Your task to perform on an android device: Search for "logitech g pro" on bestbuy, select the first entry, and add it to the cart. Image 0: 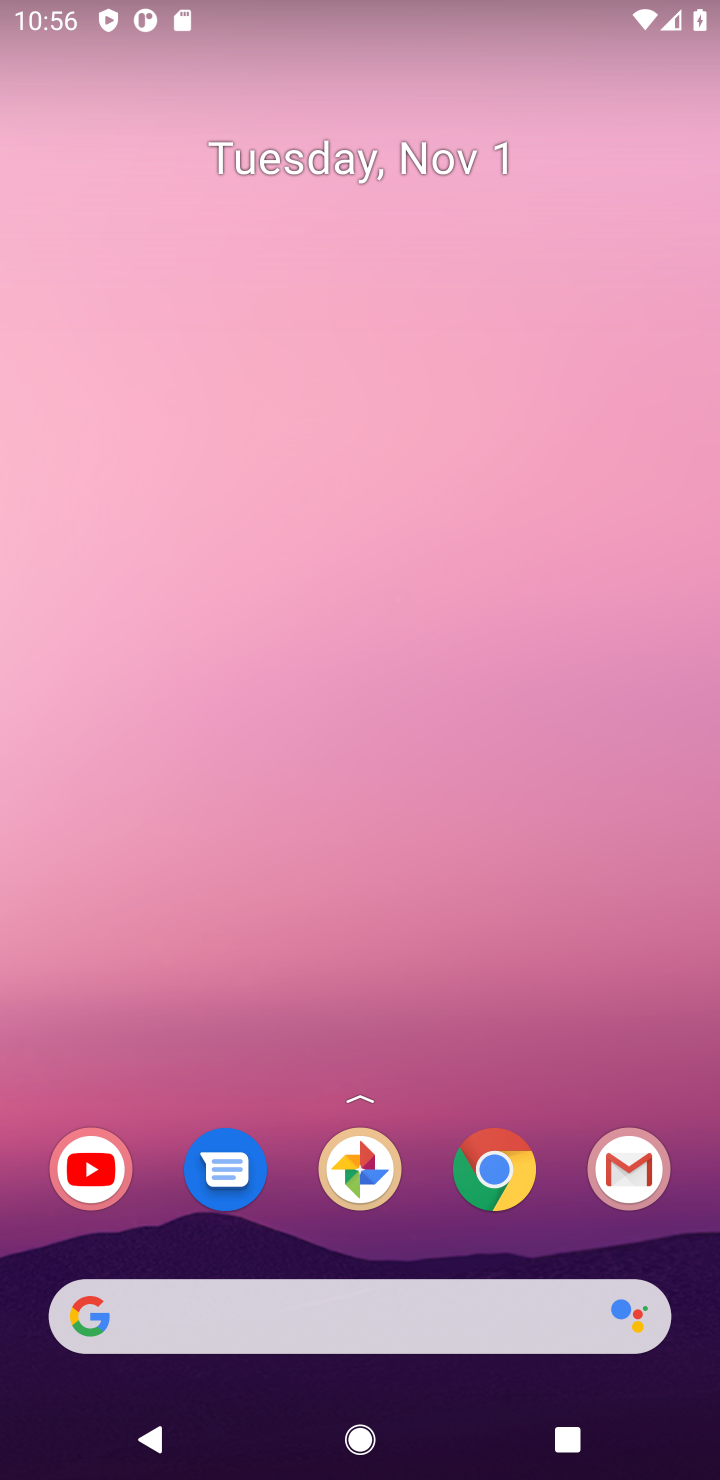
Step 0: click (497, 1176)
Your task to perform on an android device: Search for "logitech g pro" on bestbuy, select the first entry, and add it to the cart. Image 1: 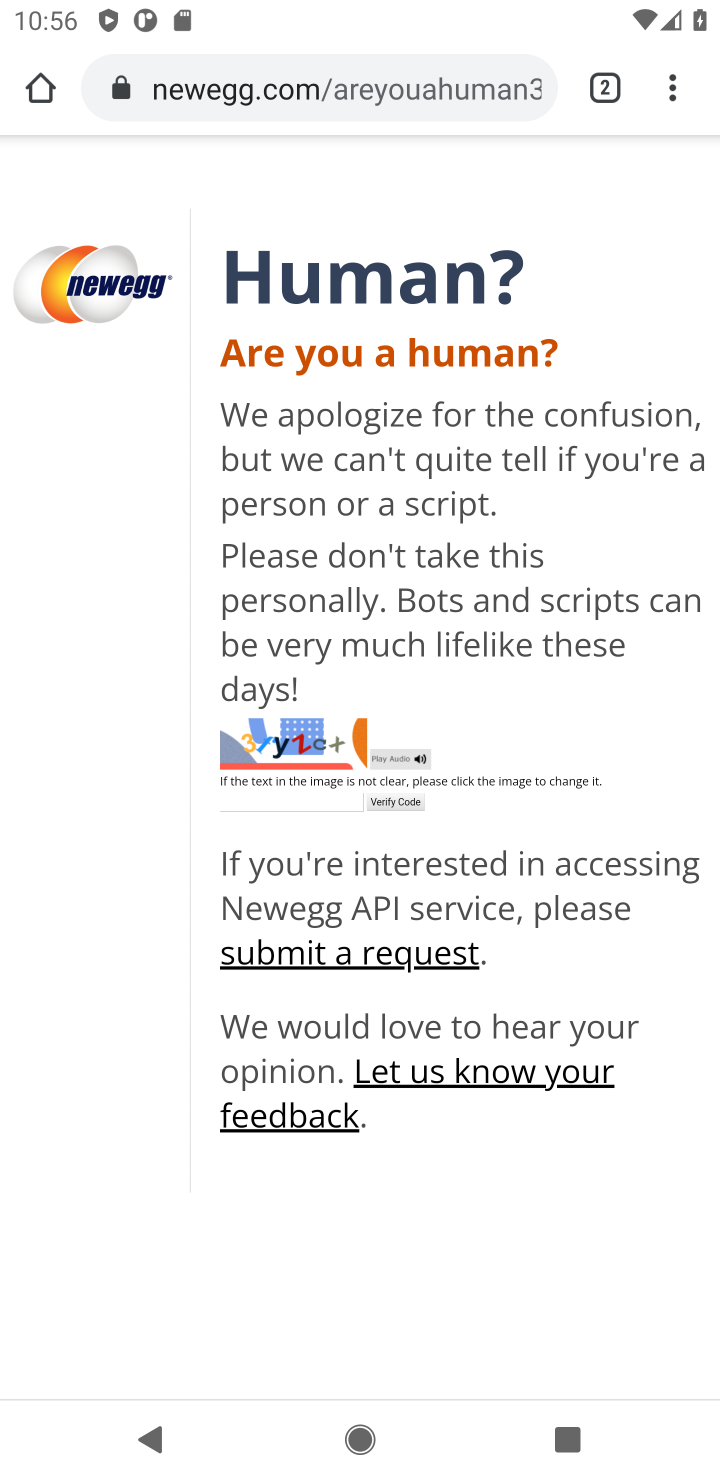
Step 1: click (389, 81)
Your task to perform on an android device: Search for "logitech g pro" on bestbuy, select the first entry, and add it to the cart. Image 2: 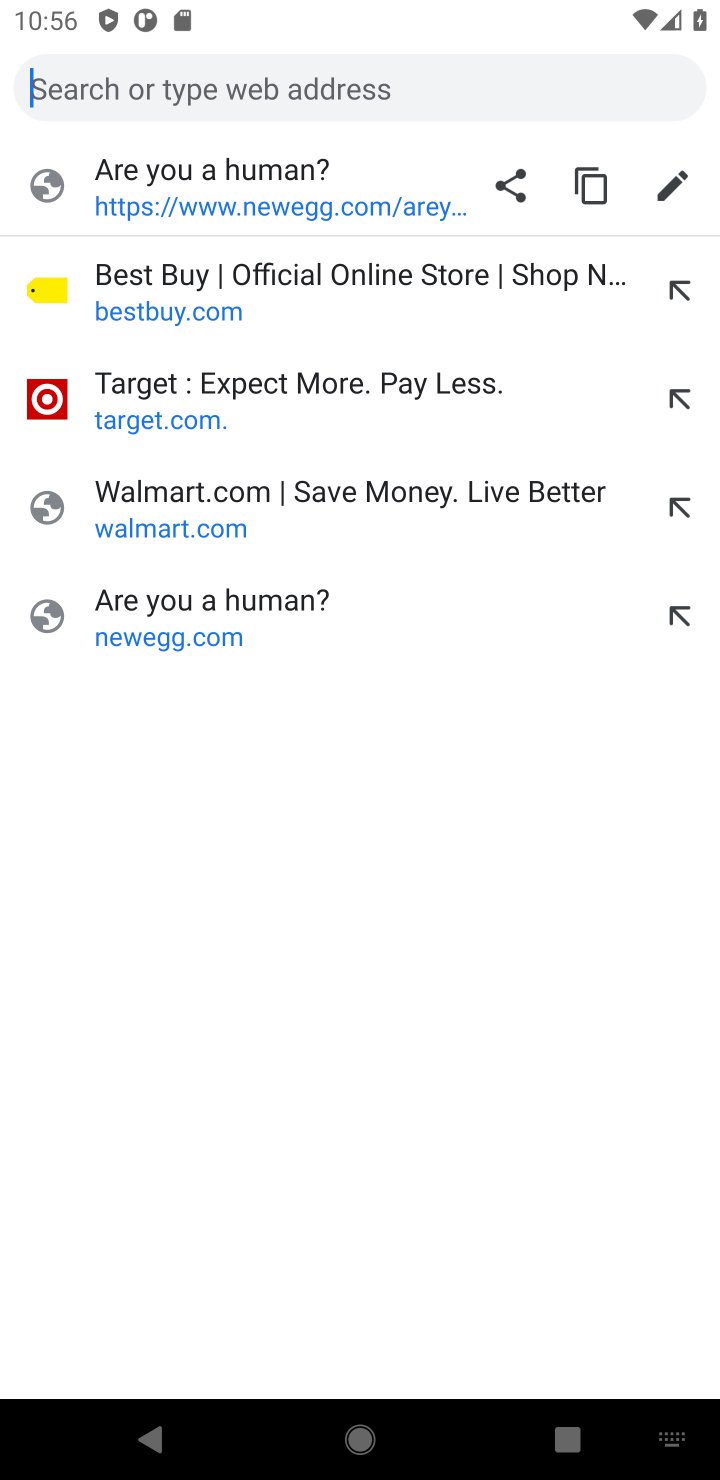
Step 2: type "bestbuy"
Your task to perform on an android device: Search for "logitech g pro" on bestbuy, select the first entry, and add it to the cart. Image 3: 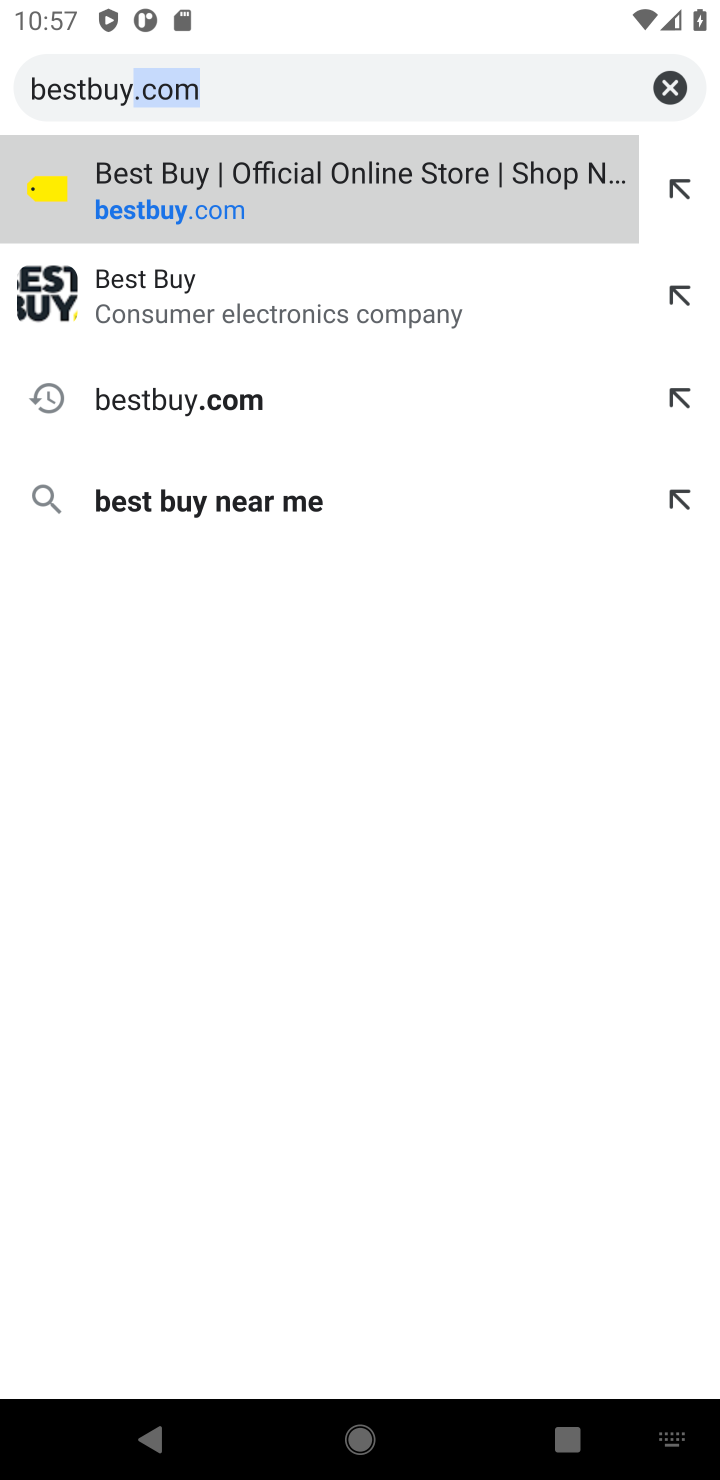
Step 3: press enter
Your task to perform on an android device: Search for "logitech g pro" on bestbuy, select the first entry, and add it to the cart. Image 4: 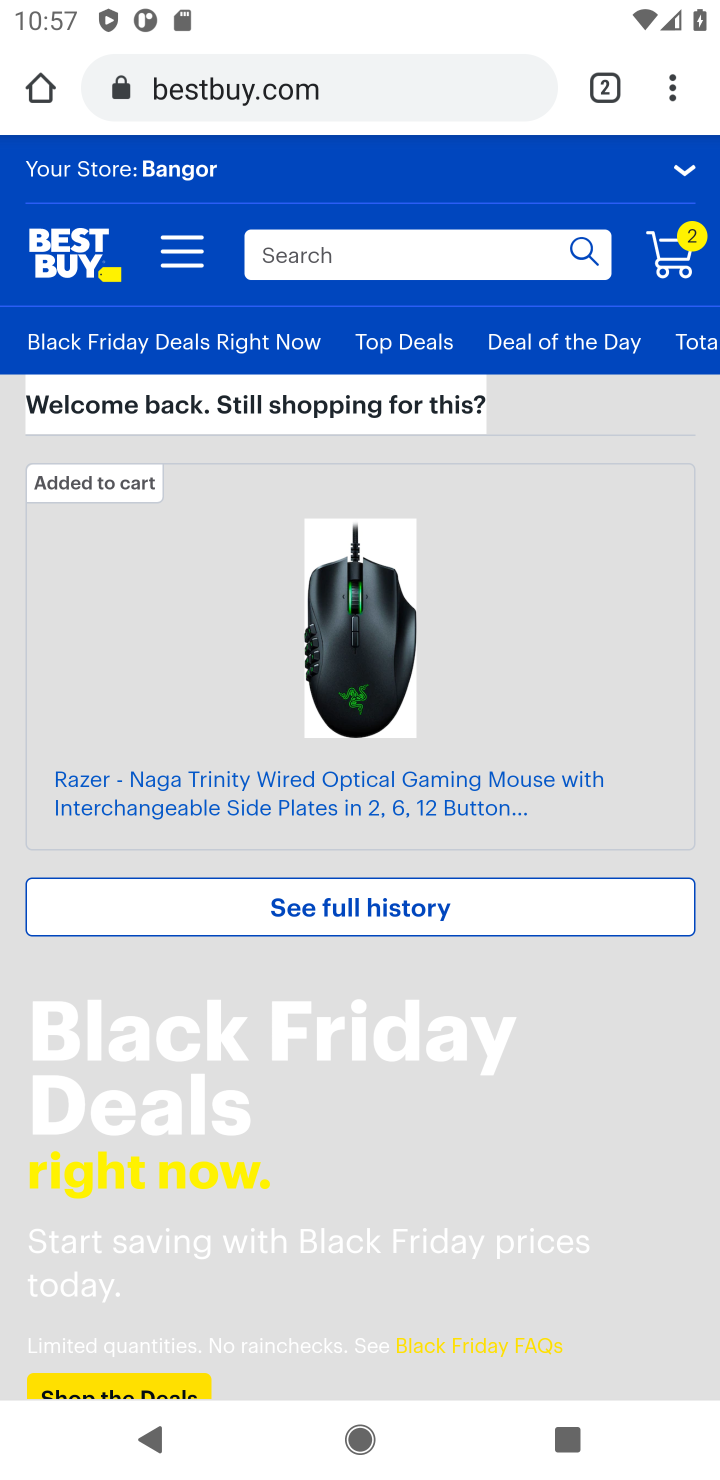
Step 4: click (371, 262)
Your task to perform on an android device: Search for "logitech g pro" on bestbuy, select the first entry, and add it to the cart. Image 5: 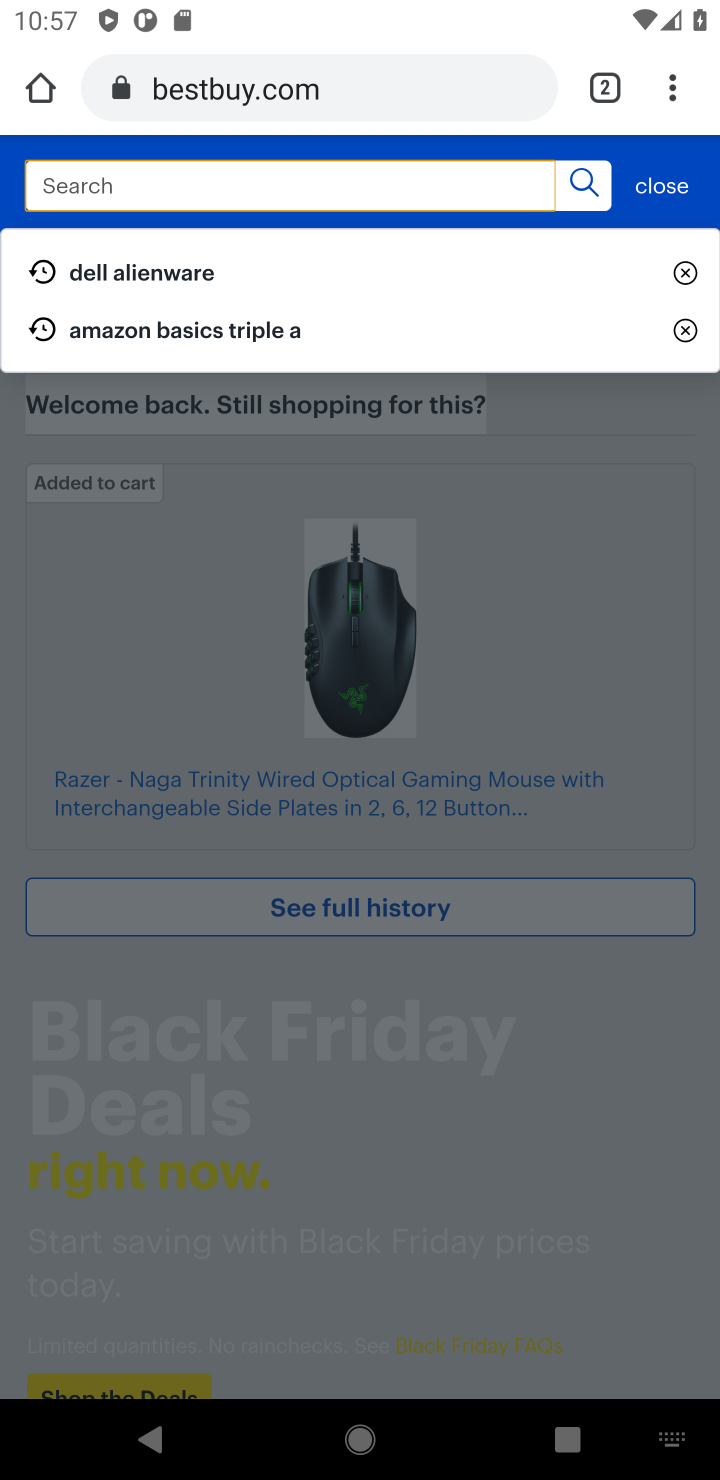
Step 5: type "logitech g pro"
Your task to perform on an android device: Search for "logitech g pro" on bestbuy, select the first entry, and add it to the cart. Image 6: 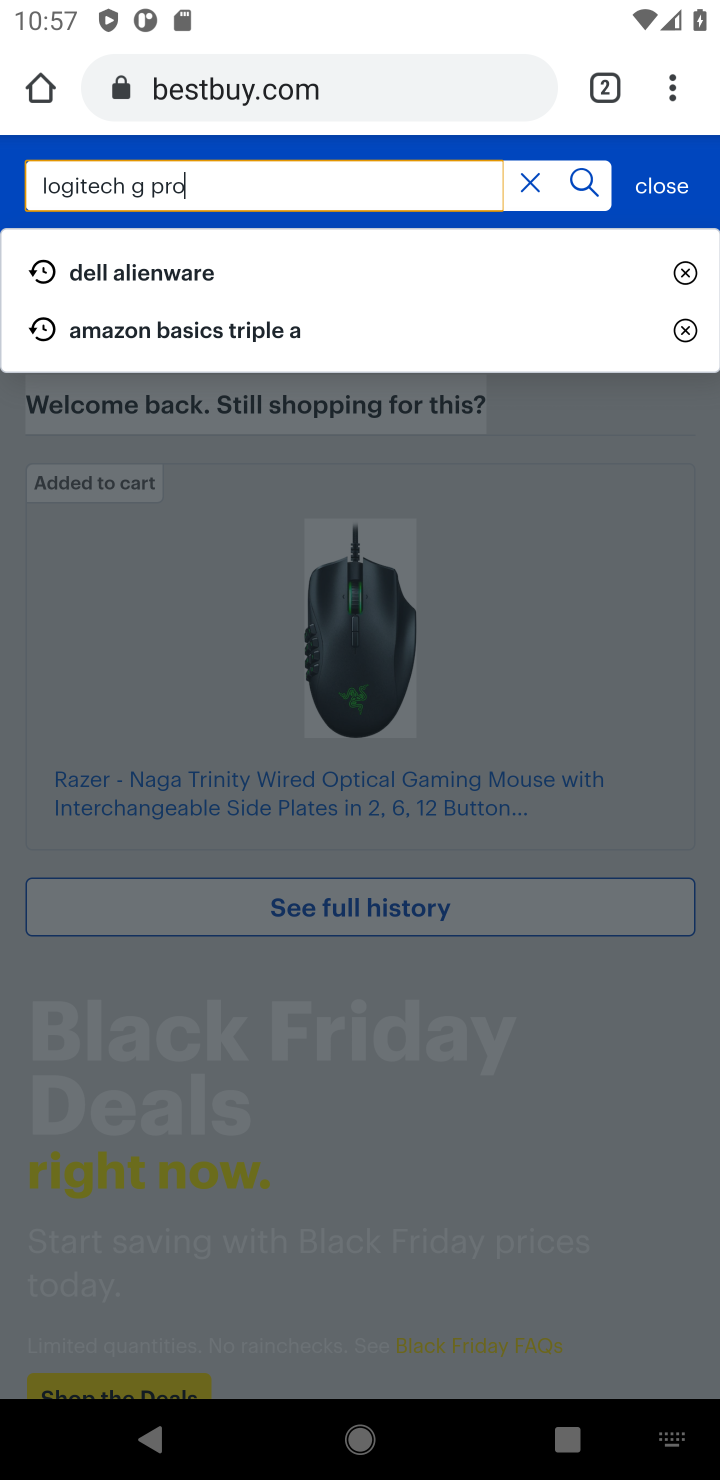
Step 6: press enter
Your task to perform on an android device: Search for "logitech g pro" on bestbuy, select the first entry, and add it to the cart. Image 7: 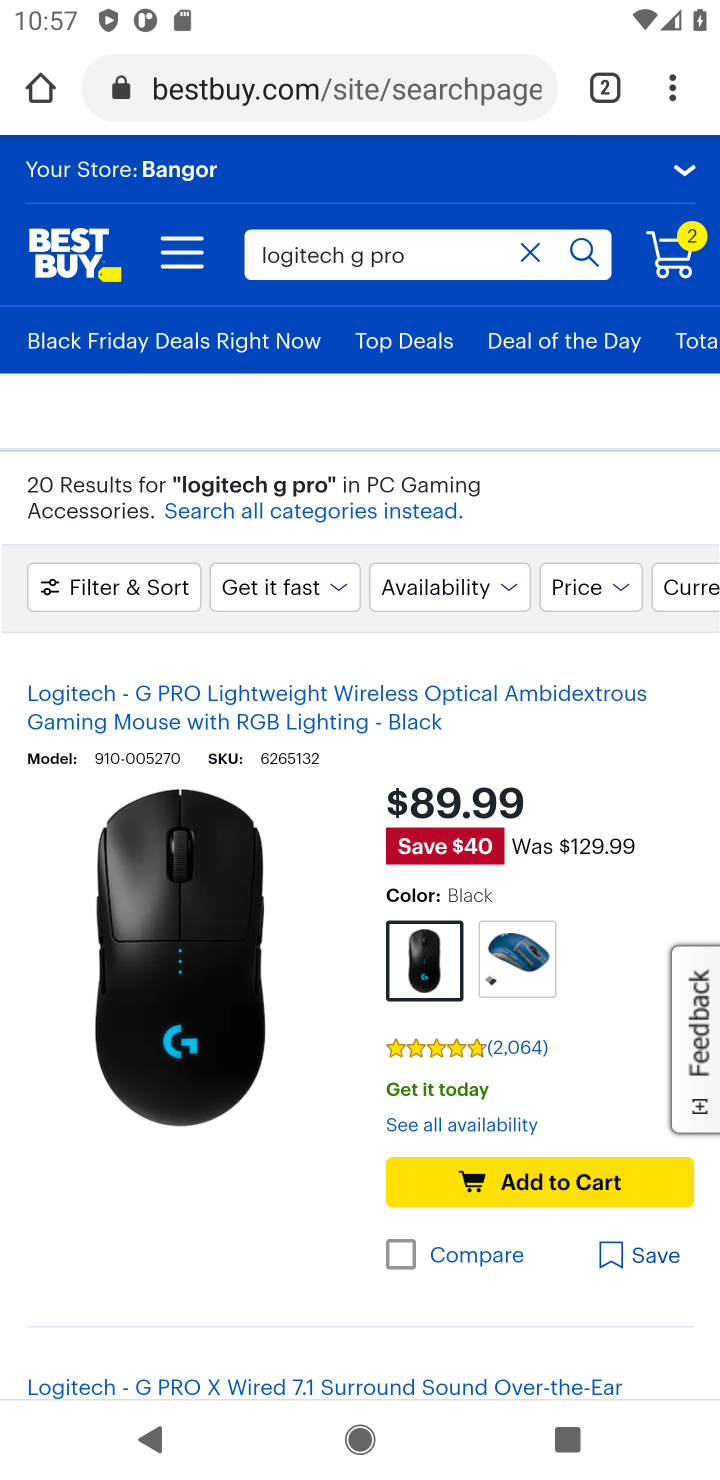
Step 7: click (151, 1033)
Your task to perform on an android device: Search for "logitech g pro" on bestbuy, select the first entry, and add it to the cart. Image 8: 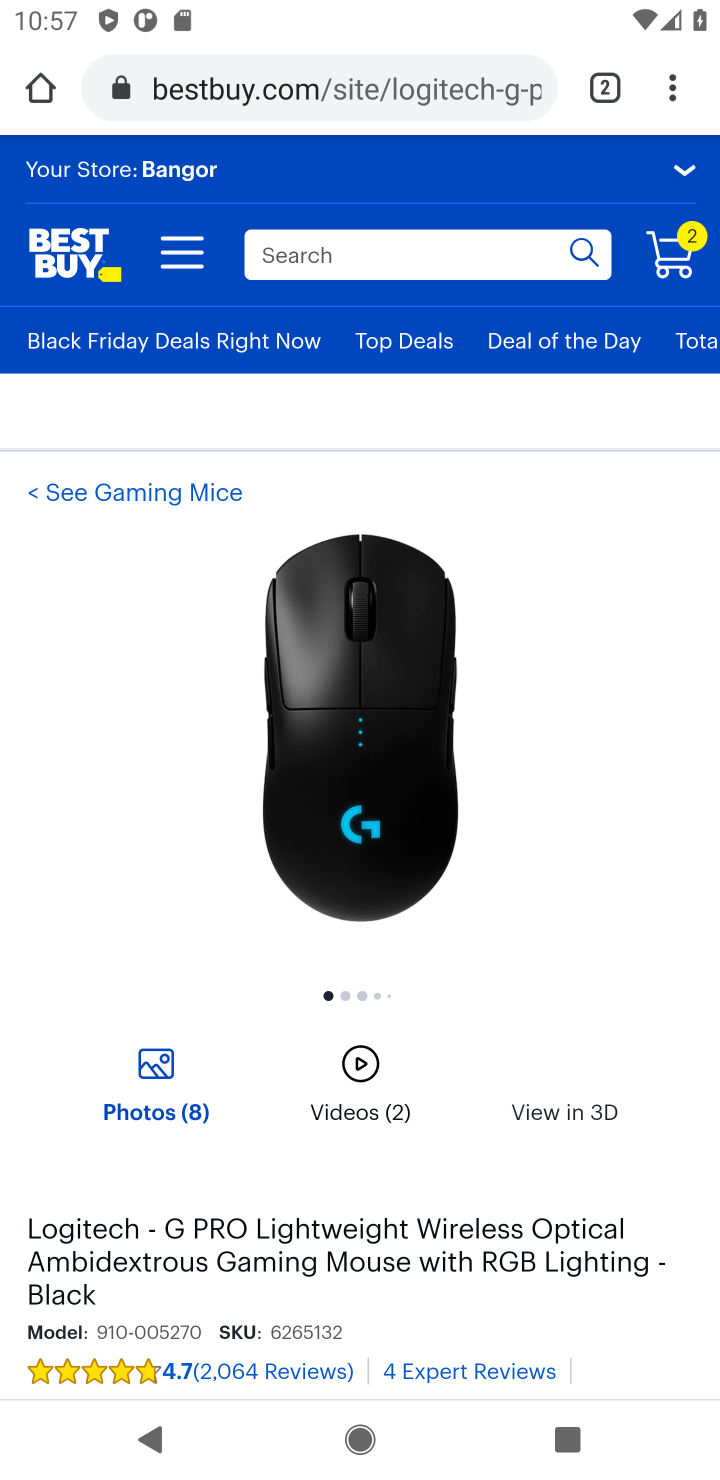
Step 8: drag from (546, 1237) to (500, 826)
Your task to perform on an android device: Search for "logitech g pro" on bestbuy, select the first entry, and add it to the cart. Image 9: 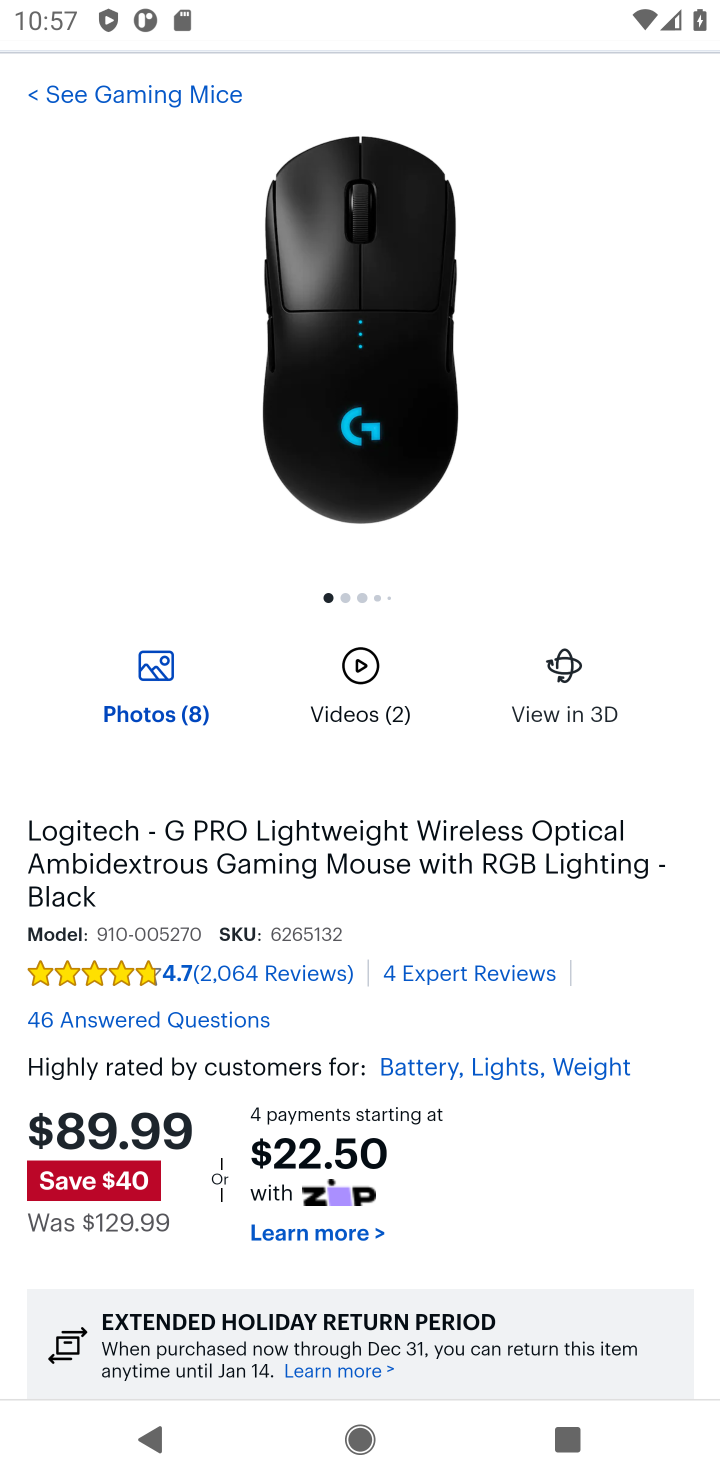
Step 9: drag from (614, 1199) to (526, 762)
Your task to perform on an android device: Search for "logitech g pro" on bestbuy, select the first entry, and add it to the cart. Image 10: 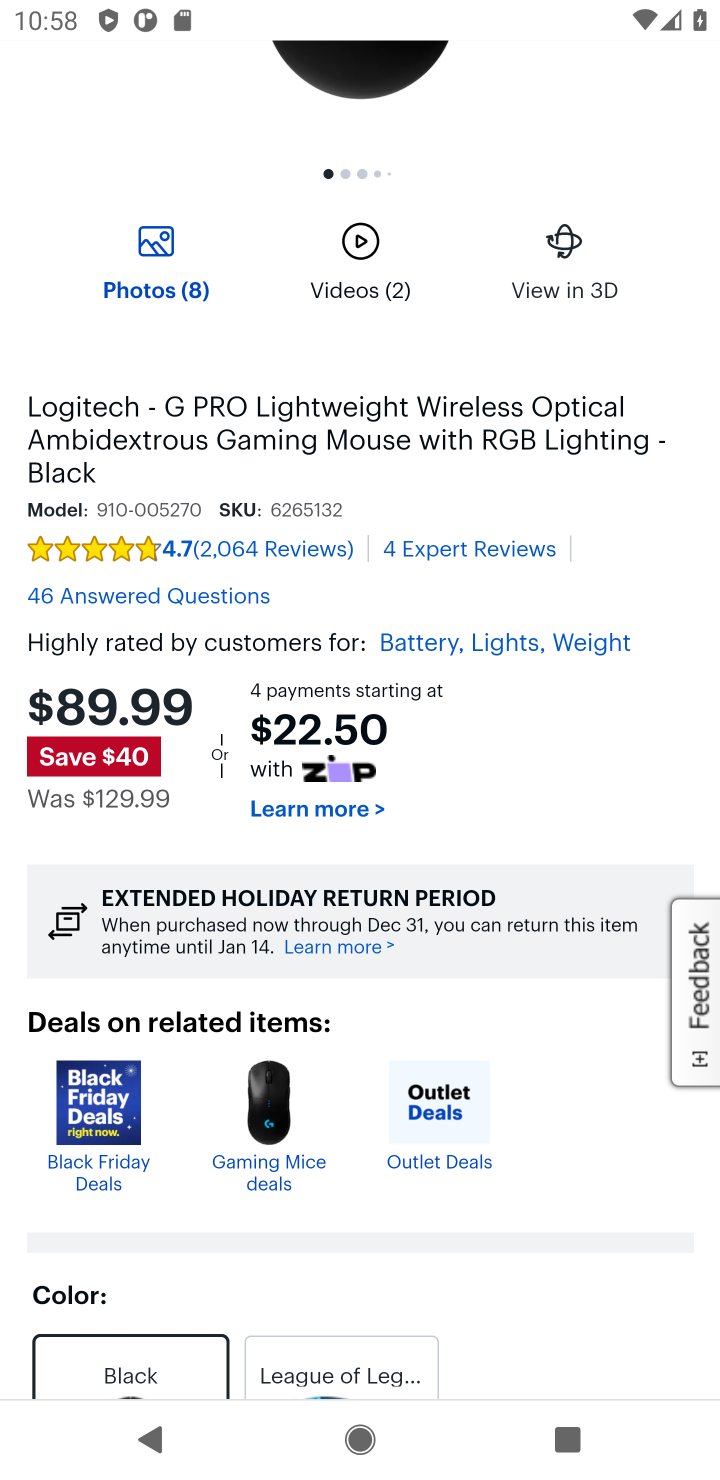
Step 10: drag from (626, 954) to (598, 513)
Your task to perform on an android device: Search for "logitech g pro" on bestbuy, select the first entry, and add it to the cart. Image 11: 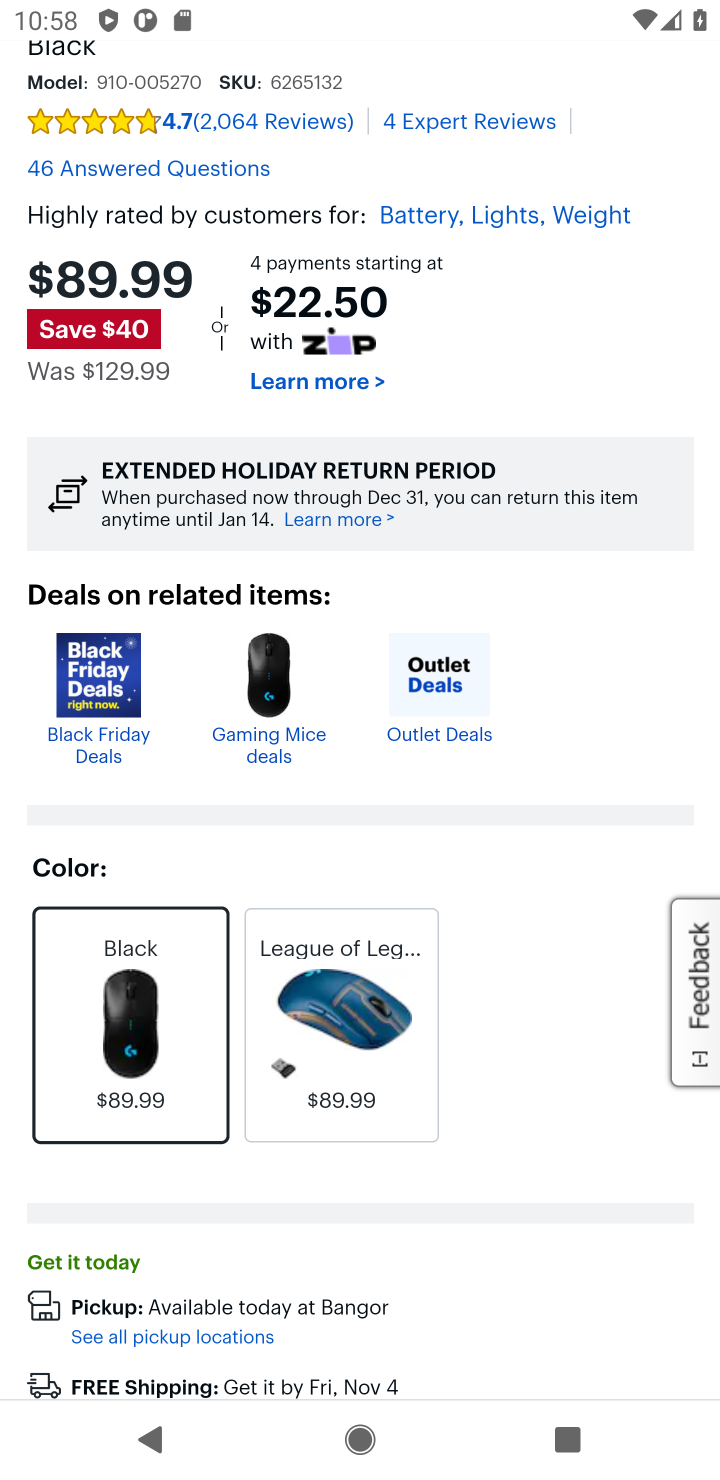
Step 11: drag from (622, 1225) to (570, 579)
Your task to perform on an android device: Search for "logitech g pro" on bestbuy, select the first entry, and add it to the cart. Image 12: 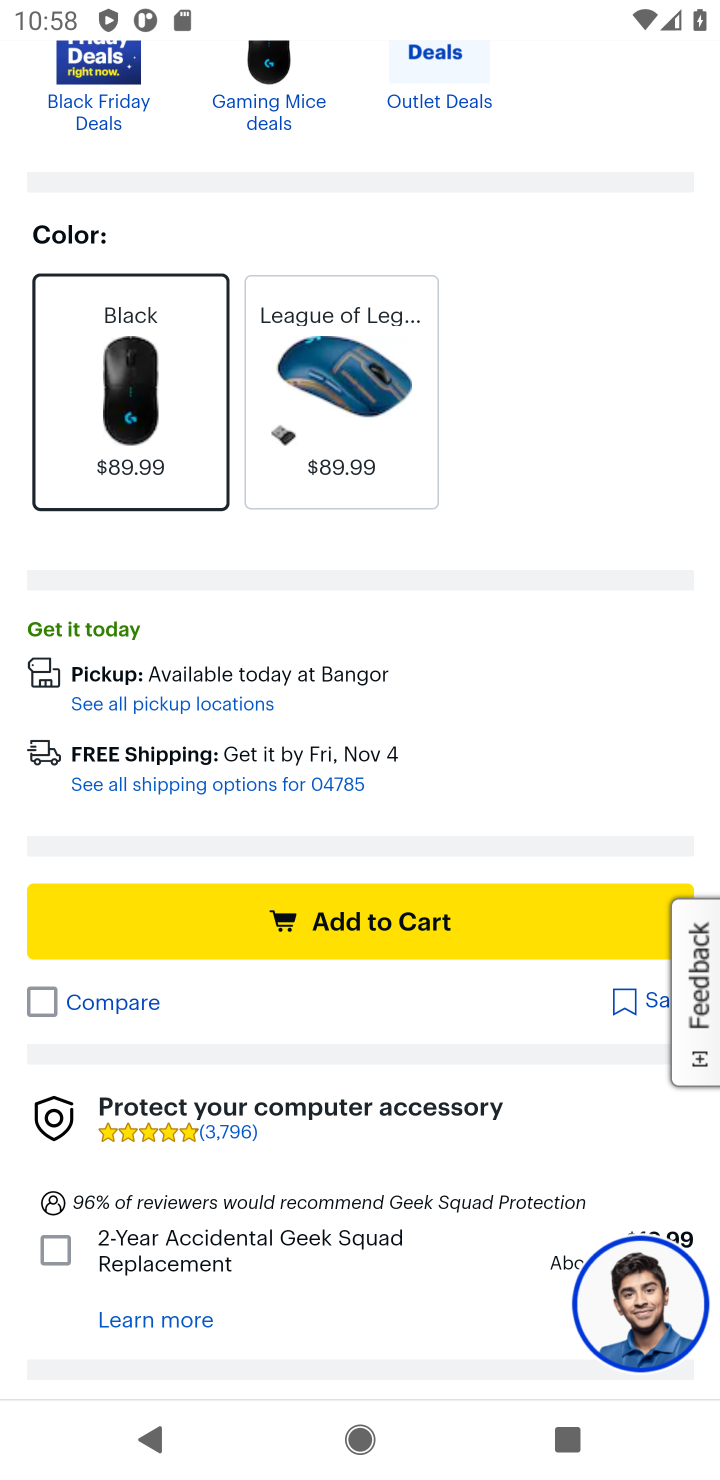
Step 12: click (423, 918)
Your task to perform on an android device: Search for "logitech g pro" on bestbuy, select the first entry, and add it to the cart. Image 13: 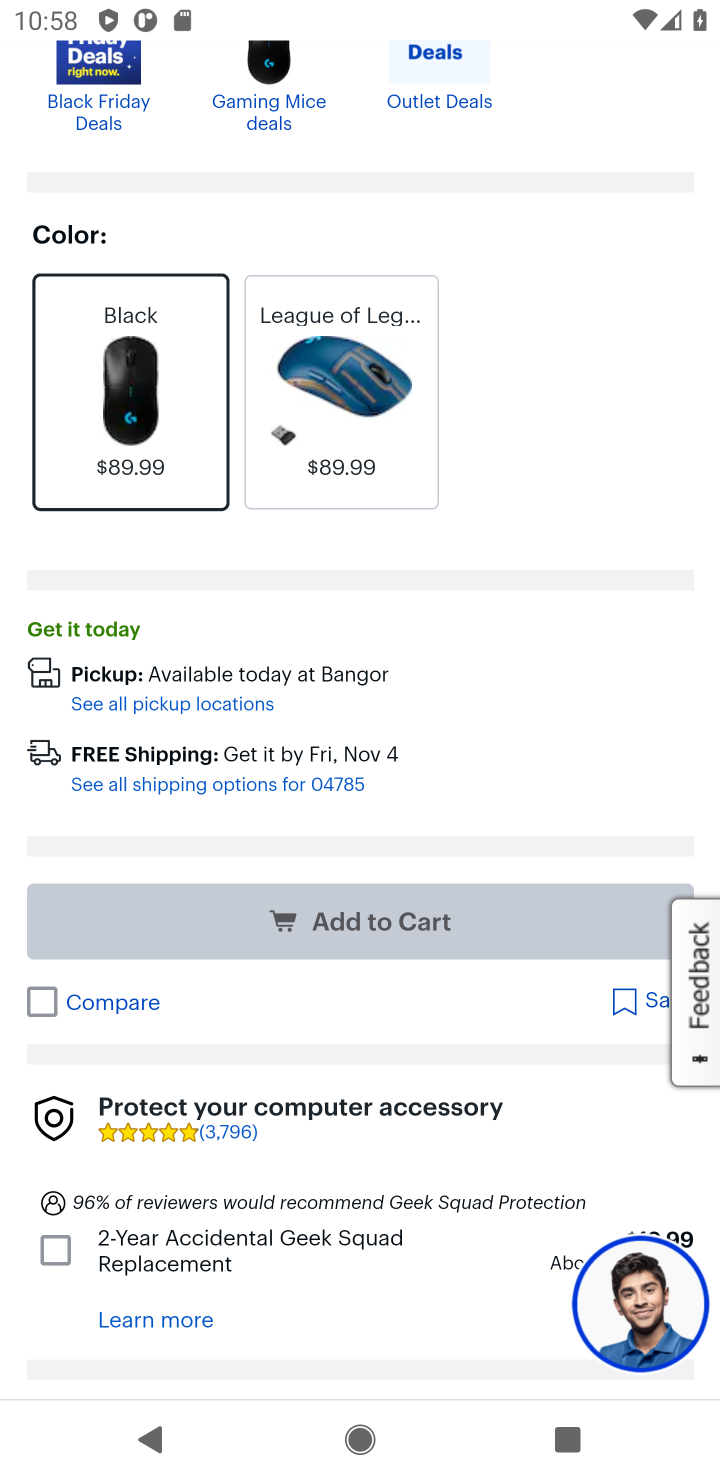
Step 13: task complete